Your task to perform on an android device: Open network settings Image 0: 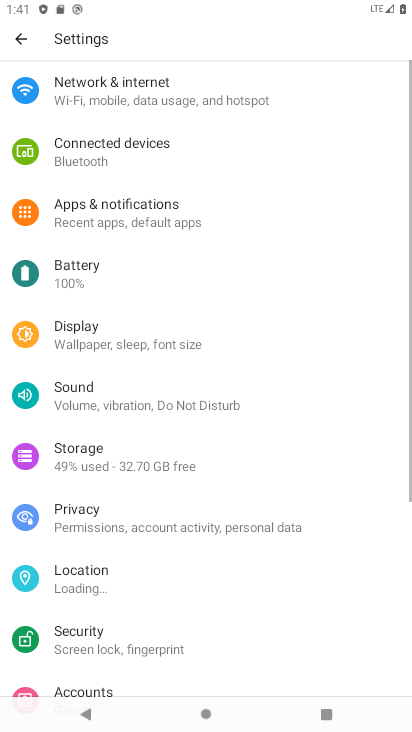
Step 0: press home button
Your task to perform on an android device: Open network settings Image 1: 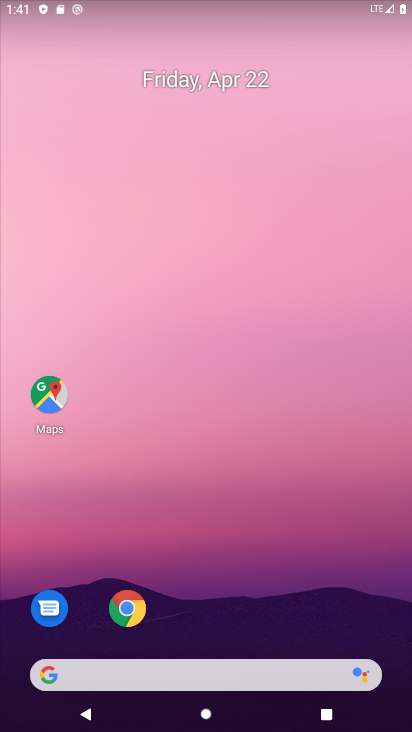
Step 1: drag from (261, 683) to (371, 127)
Your task to perform on an android device: Open network settings Image 2: 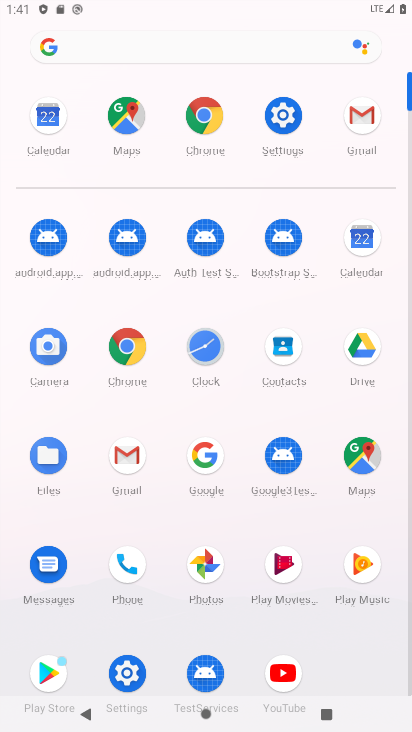
Step 2: click (286, 119)
Your task to perform on an android device: Open network settings Image 3: 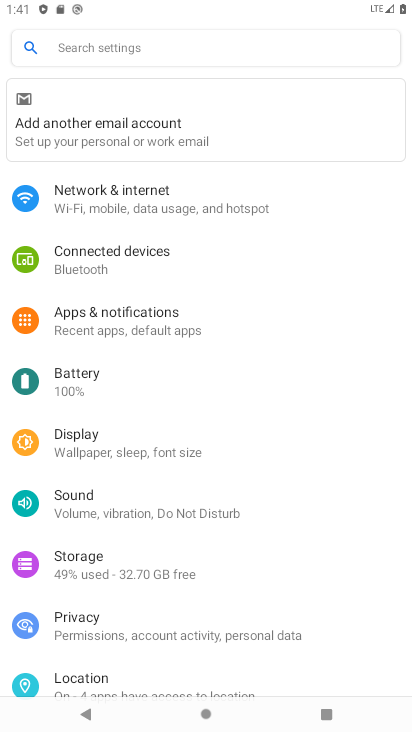
Step 3: click (180, 186)
Your task to perform on an android device: Open network settings Image 4: 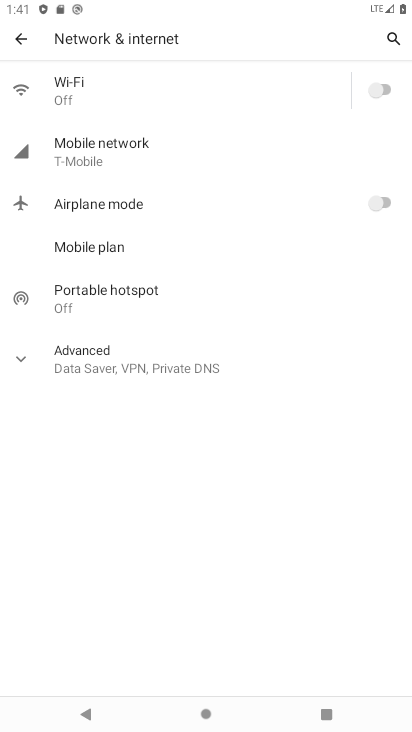
Step 4: click (68, 361)
Your task to perform on an android device: Open network settings Image 5: 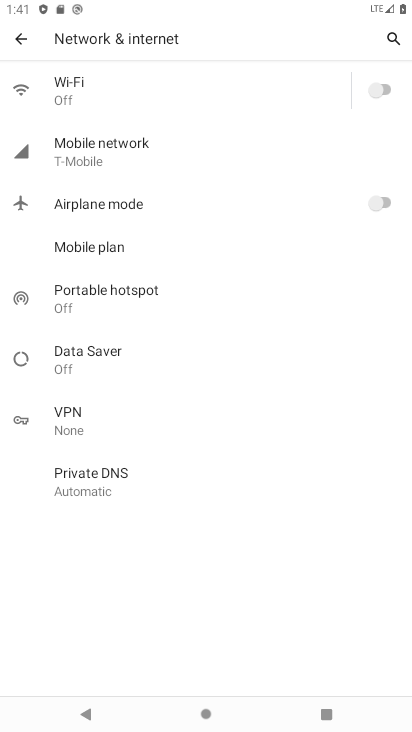
Step 5: task complete